Your task to perform on an android device: toggle airplane mode Image 0: 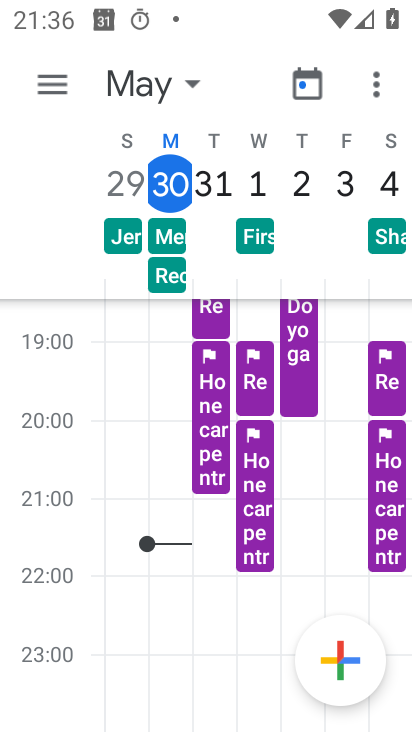
Step 0: press home button
Your task to perform on an android device: toggle airplane mode Image 1: 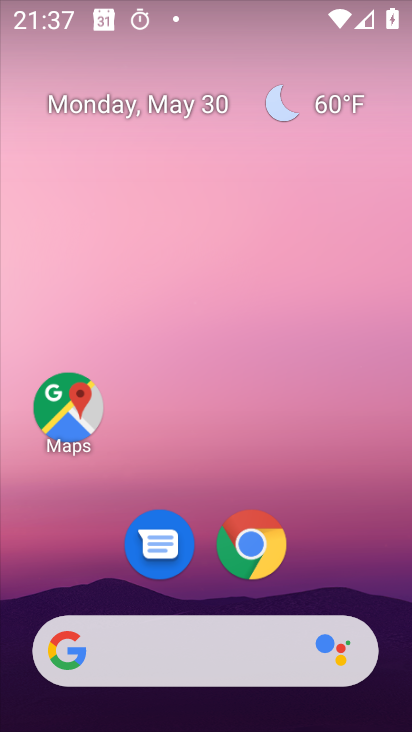
Step 1: drag from (330, 575) to (200, 138)
Your task to perform on an android device: toggle airplane mode Image 2: 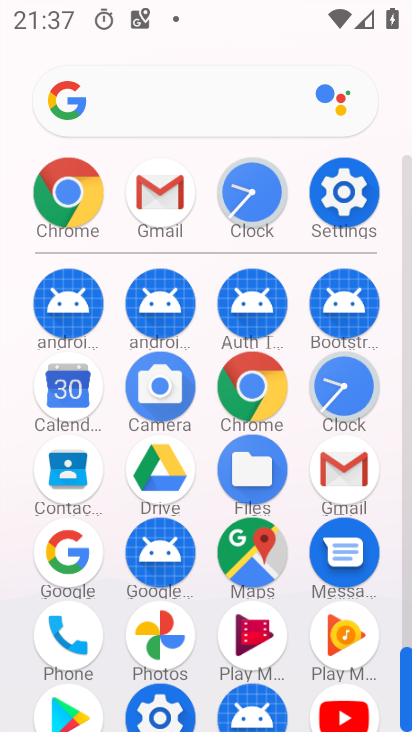
Step 2: click (342, 193)
Your task to perform on an android device: toggle airplane mode Image 3: 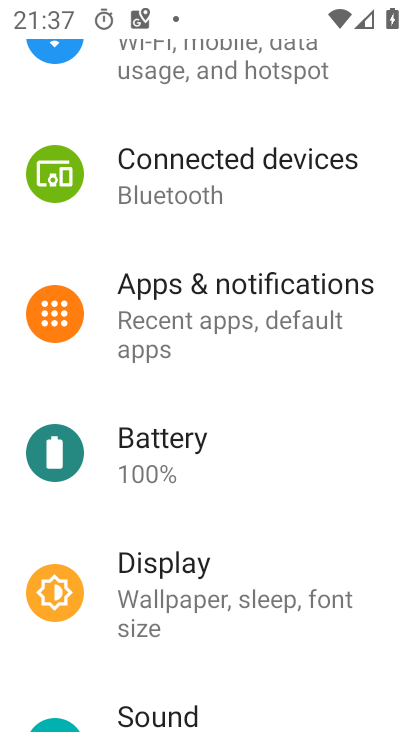
Step 3: drag from (240, 235) to (301, 420)
Your task to perform on an android device: toggle airplane mode Image 4: 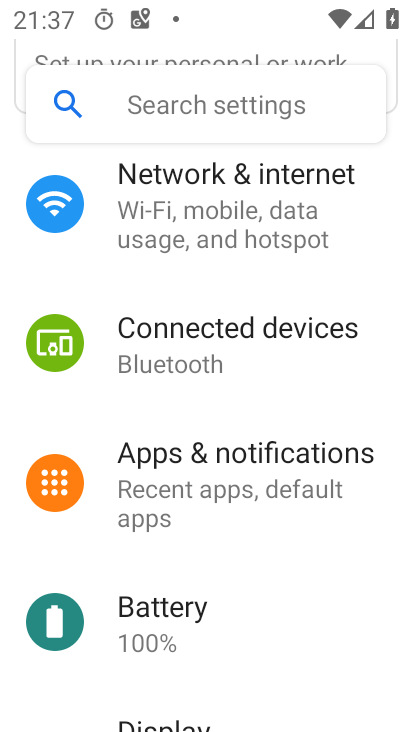
Step 4: drag from (259, 289) to (349, 547)
Your task to perform on an android device: toggle airplane mode Image 5: 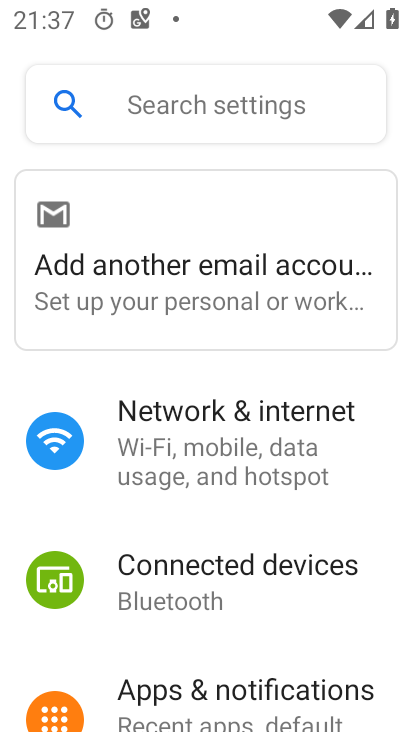
Step 5: click (254, 407)
Your task to perform on an android device: toggle airplane mode Image 6: 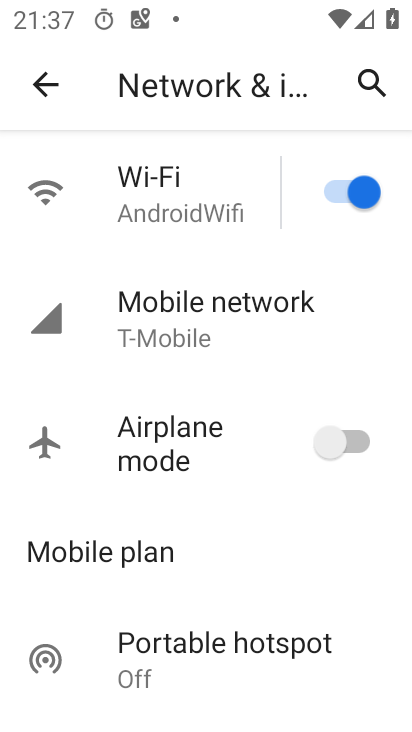
Step 6: click (346, 443)
Your task to perform on an android device: toggle airplane mode Image 7: 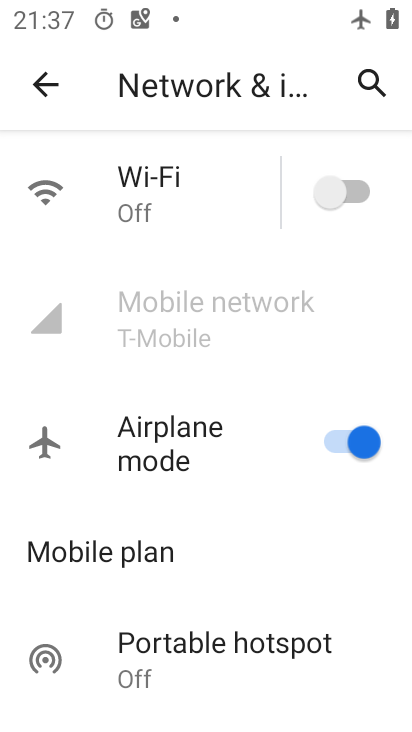
Step 7: task complete